Your task to perform on an android device: See recent photos Image 0: 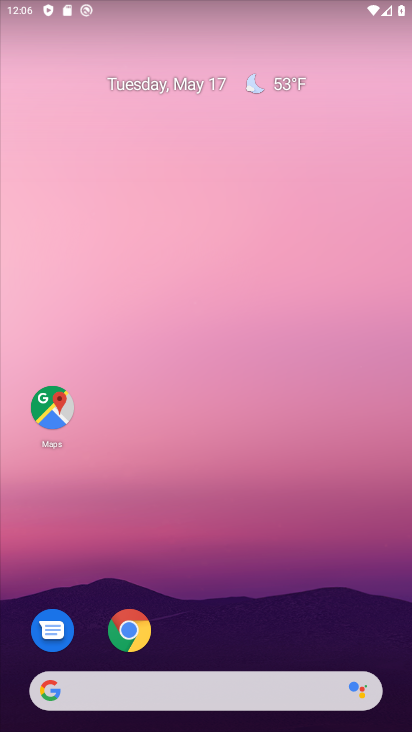
Step 0: drag from (262, 585) to (404, 40)
Your task to perform on an android device: See recent photos Image 1: 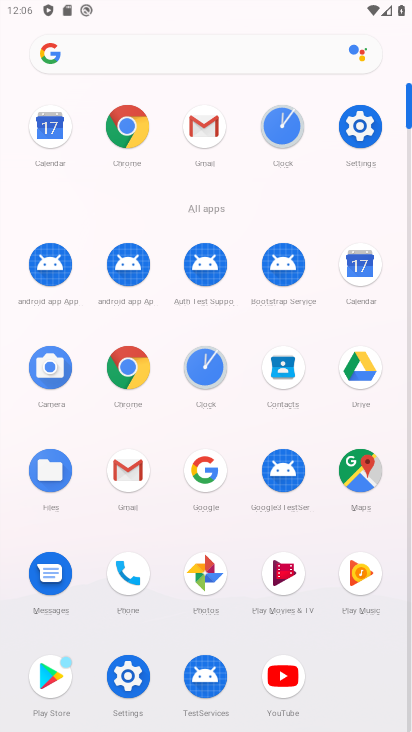
Step 1: click (210, 593)
Your task to perform on an android device: See recent photos Image 2: 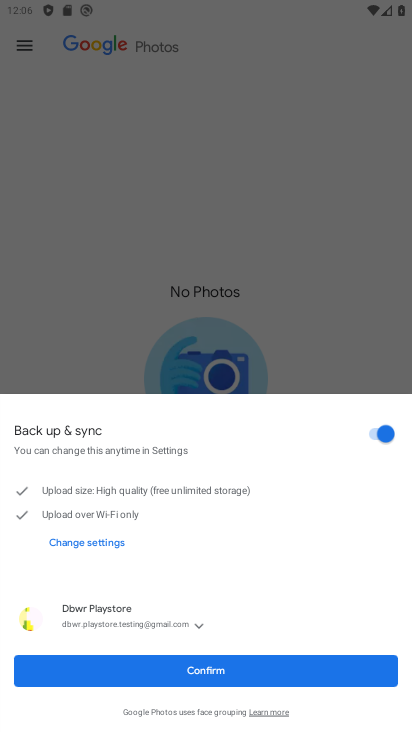
Step 2: click (216, 668)
Your task to perform on an android device: See recent photos Image 3: 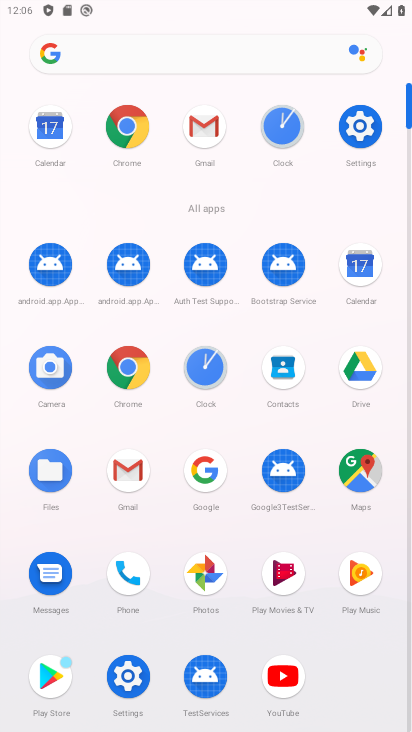
Step 3: click (204, 590)
Your task to perform on an android device: See recent photos Image 4: 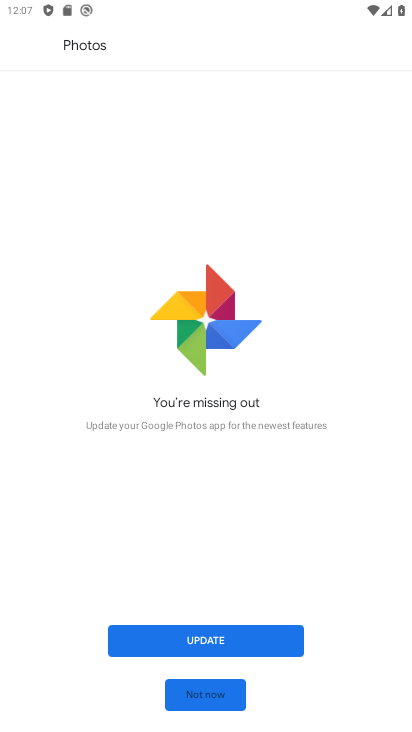
Step 4: task complete